Your task to perform on an android device: change timer sound Image 0: 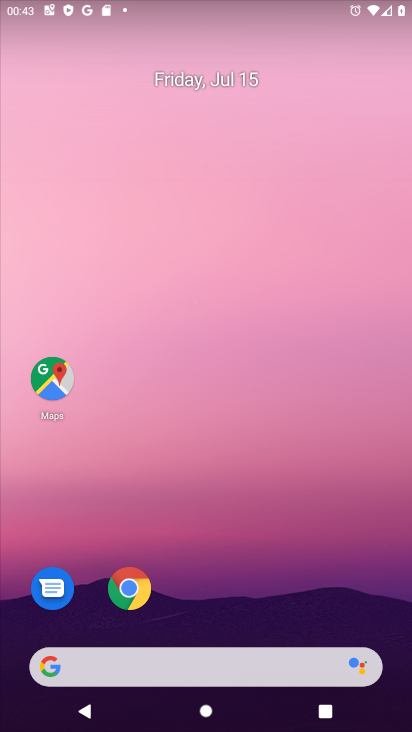
Step 0: drag from (188, 672) to (303, 112)
Your task to perform on an android device: change timer sound Image 1: 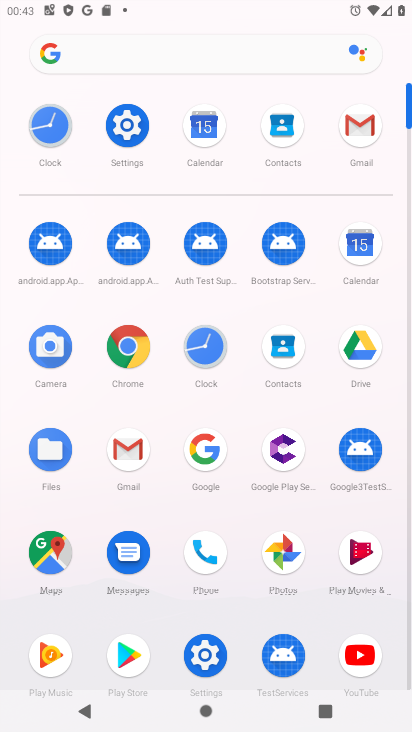
Step 1: click (210, 348)
Your task to perform on an android device: change timer sound Image 2: 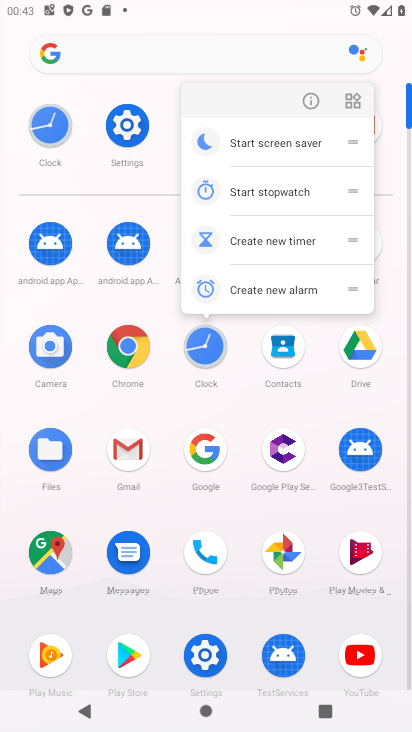
Step 2: click (191, 347)
Your task to perform on an android device: change timer sound Image 3: 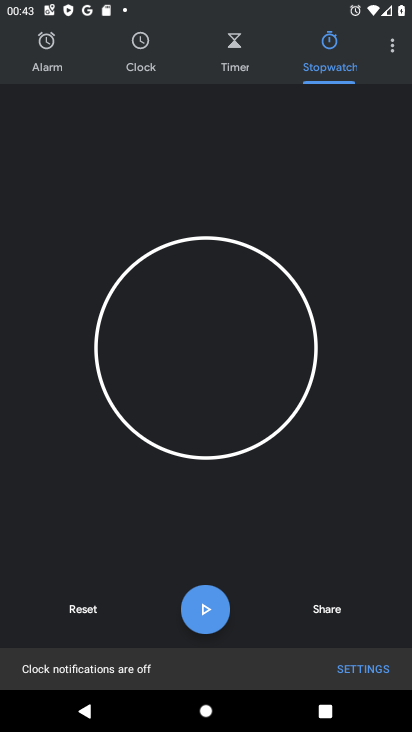
Step 3: click (390, 47)
Your task to perform on an android device: change timer sound Image 4: 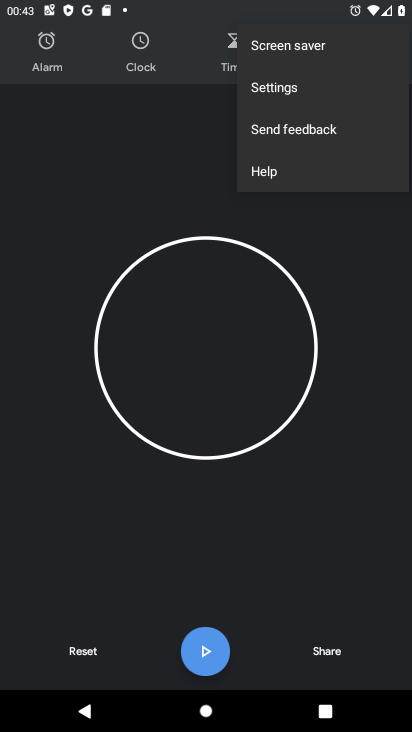
Step 4: click (286, 88)
Your task to perform on an android device: change timer sound Image 5: 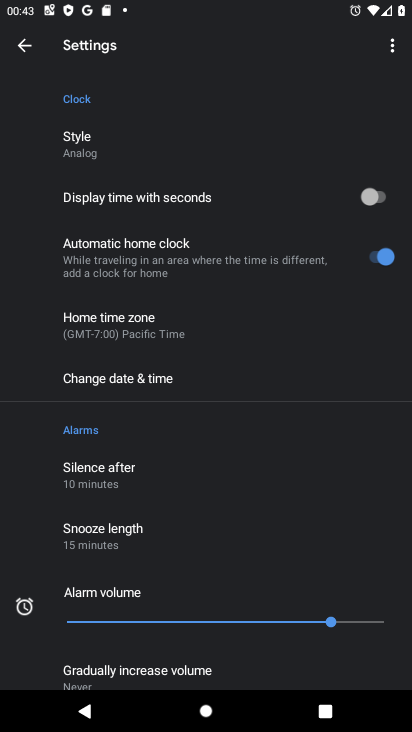
Step 5: drag from (179, 563) to (344, 111)
Your task to perform on an android device: change timer sound Image 6: 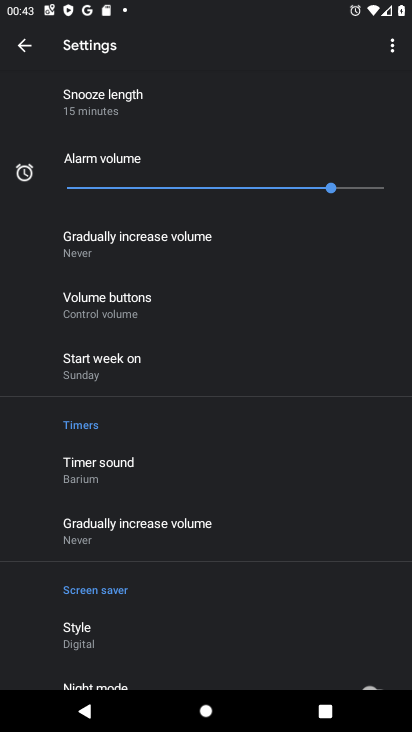
Step 6: click (112, 469)
Your task to perform on an android device: change timer sound Image 7: 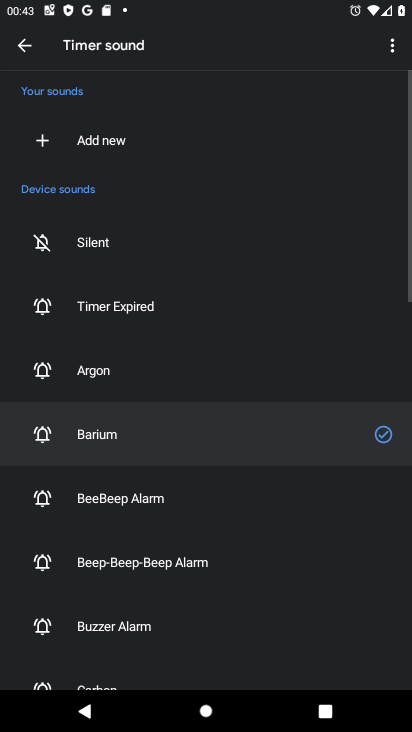
Step 7: click (101, 372)
Your task to perform on an android device: change timer sound Image 8: 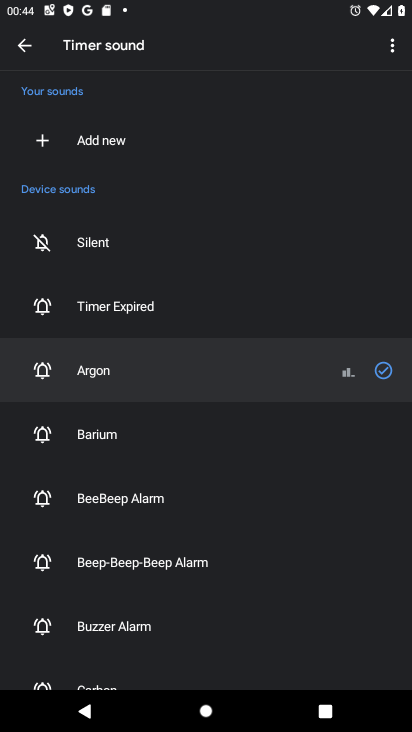
Step 8: task complete